Your task to perform on an android device: open wifi settings Image 0: 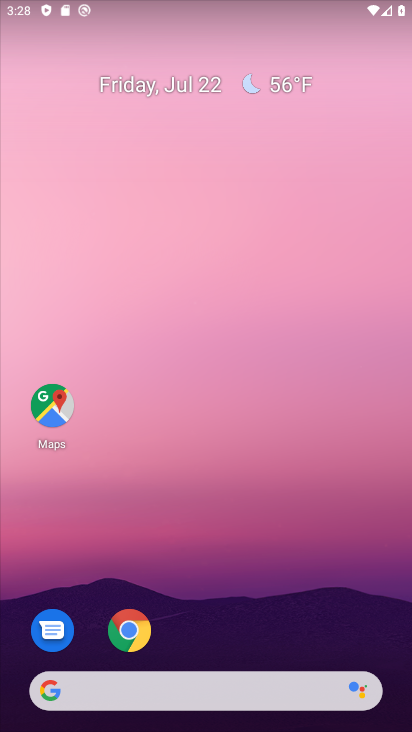
Step 0: drag from (262, 643) to (146, 139)
Your task to perform on an android device: open wifi settings Image 1: 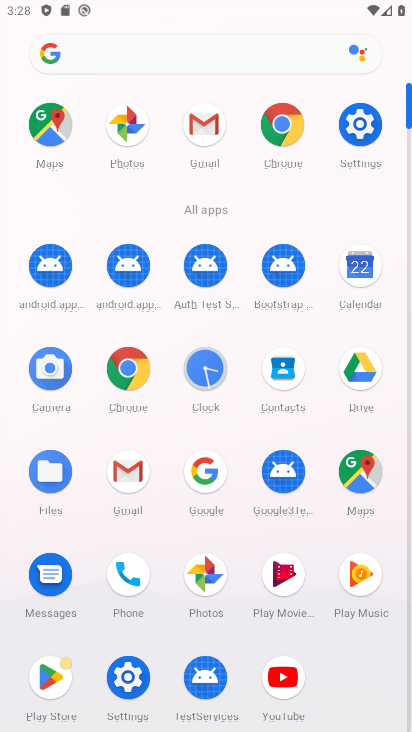
Step 1: click (358, 139)
Your task to perform on an android device: open wifi settings Image 2: 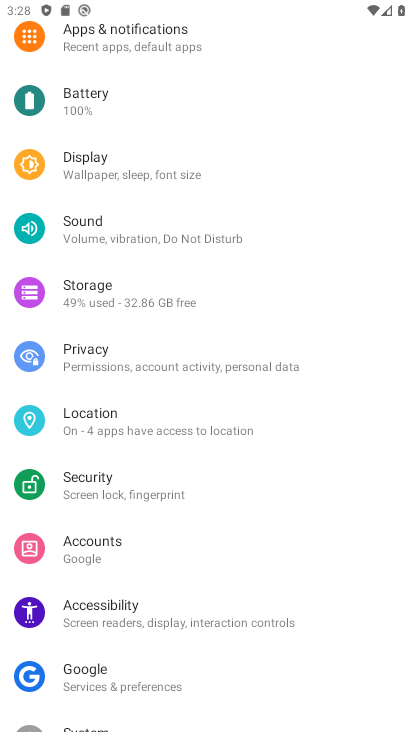
Step 2: drag from (211, 71) to (240, 365)
Your task to perform on an android device: open wifi settings Image 3: 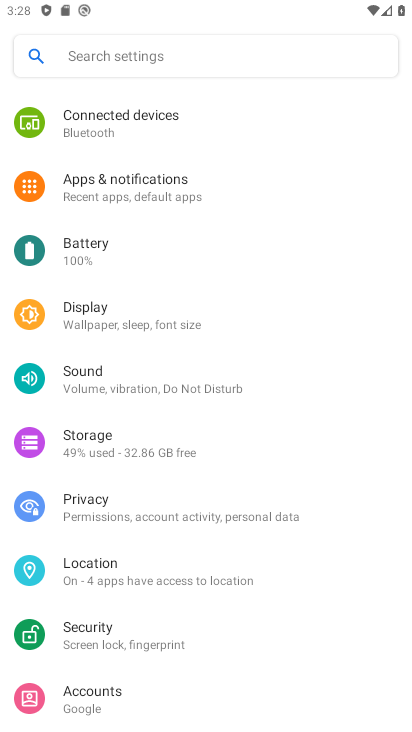
Step 3: drag from (184, 142) to (222, 483)
Your task to perform on an android device: open wifi settings Image 4: 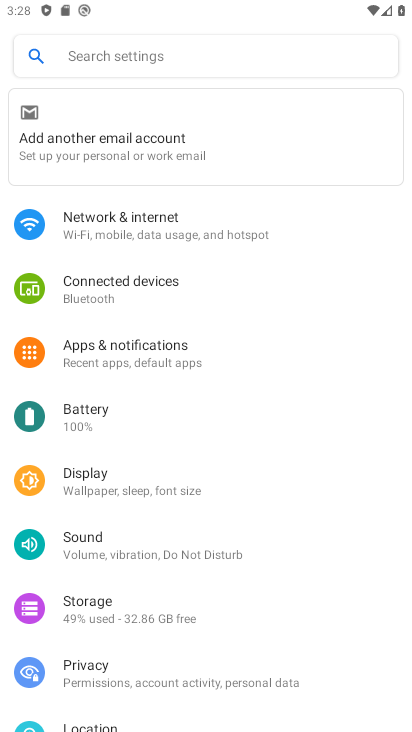
Step 4: click (199, 216)
Your task to perform on an android device: open wifi settings Image 5: 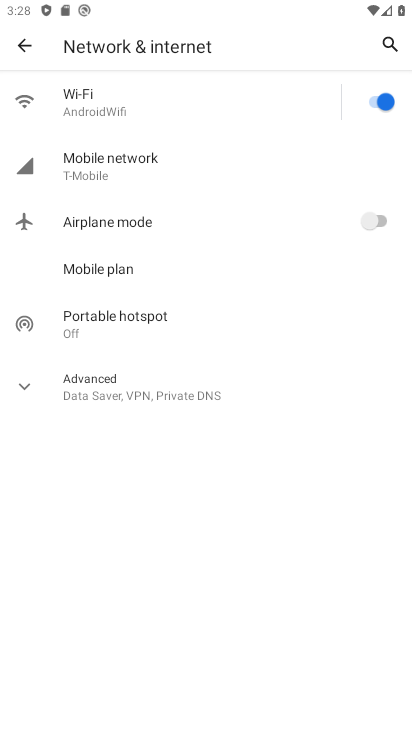
Step 5: click (135, 106)
Your task to perform on an android device: open wifi settings Image 6: 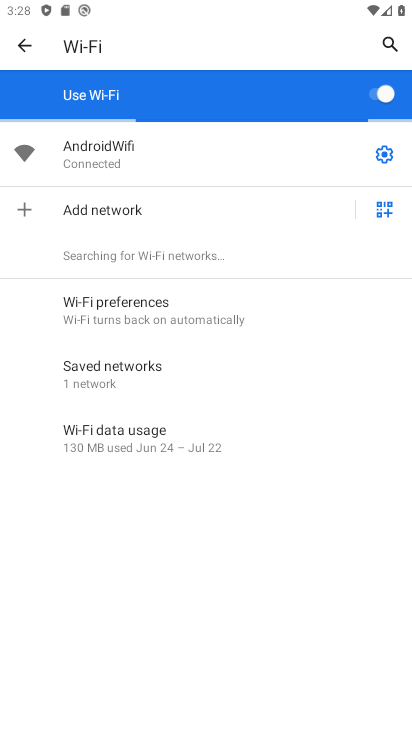
Step 6: task complete